Your task to perform on an android device: Go to notification settings Image 0: 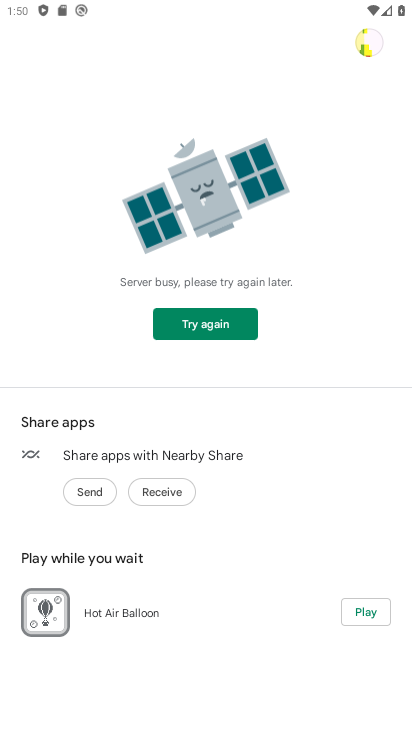
Step 0: press home button
Your task to perform on an android device: Go to notification settings Image 1: 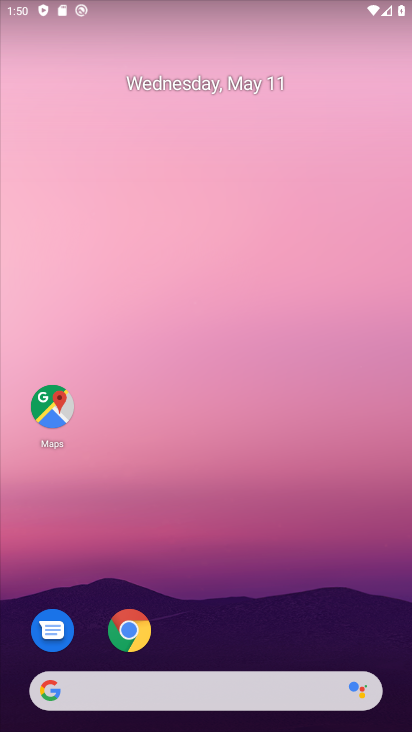
Step 1: drag from (212, 701) to (212, 225)
Your task to perform on an android device: Go to notification settings Image 2: 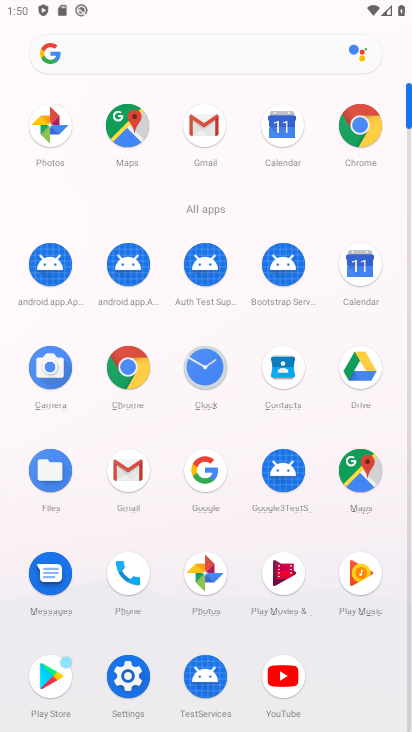
Step 2: click (127, 673)
Your task to perform on an android device: Go to notification settings Image 3: 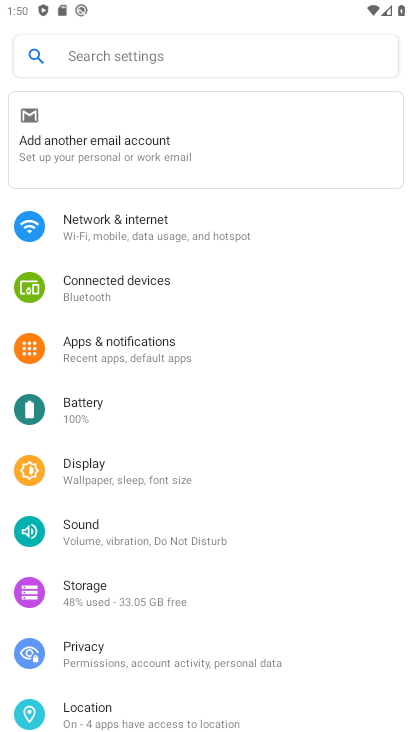
Step 3: click (96, 353)
Your task to perform on an android device: Go to notification settings Image 4: 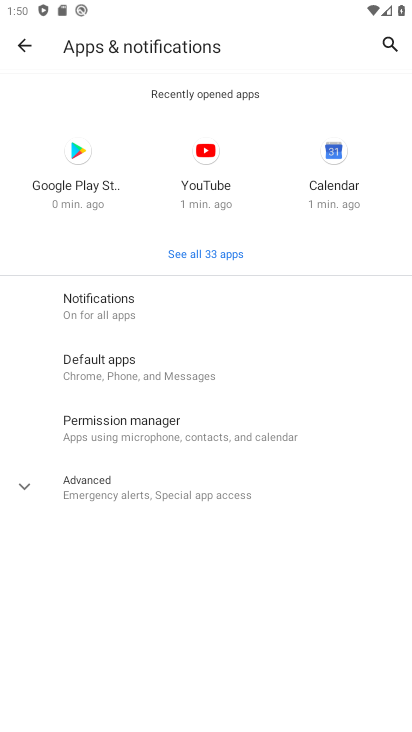
Step 4: click (98, 297)
Your task to perform on an android device: Go to notification settings Image 5: 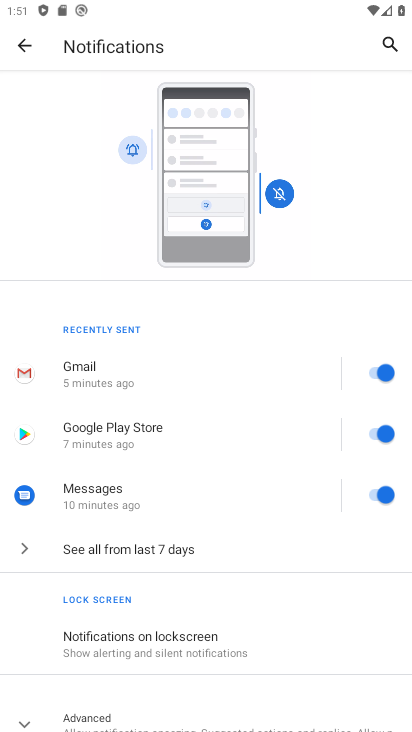
Step 5: task complete